Your task to perform on an android device: turn on translation in the chrome app Image 0: 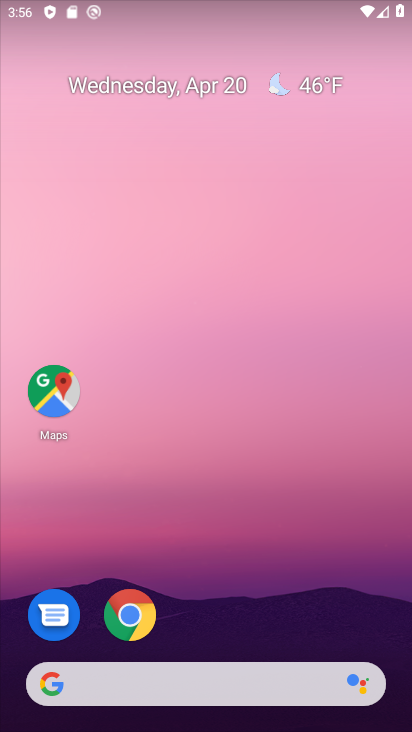
Step 0: drag from (341, 501) to (118, 16)
Your task to perform on an android device: turn on translation in the chrome app Image 1: 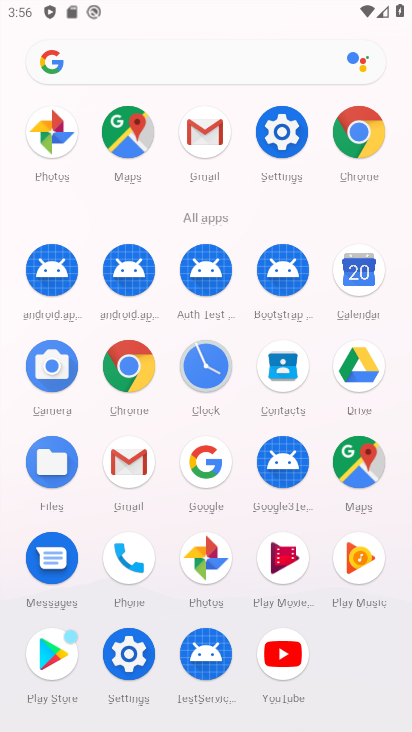
Step 1: click (376, 118)
Your task to perform on an android device: turn on translation in the chrome app Image 2: 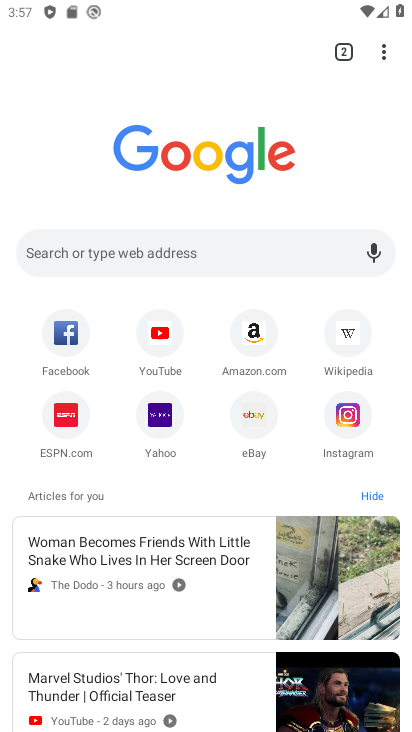
Step 2: click (385, 61)
Your task to perform on an android device: turn on translation in the chrome app Image 3: 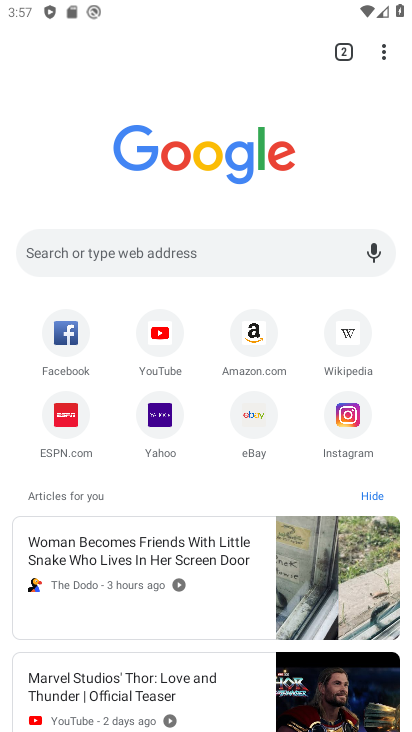
Step 3: drag from (385, 61) to (184, 437)
Your task to perform on an android device: turn on translation in the chrome app Image 4: 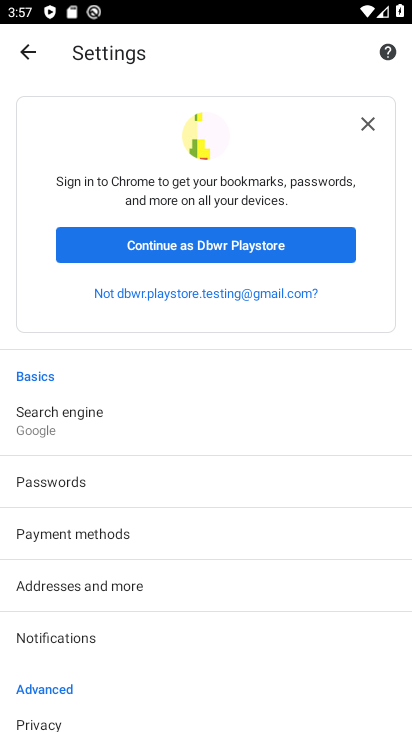
Step 4: drag from (89, 569) to (164, 321)
Your task to perform on an android device: turn on translation in the chrome app Image 5: 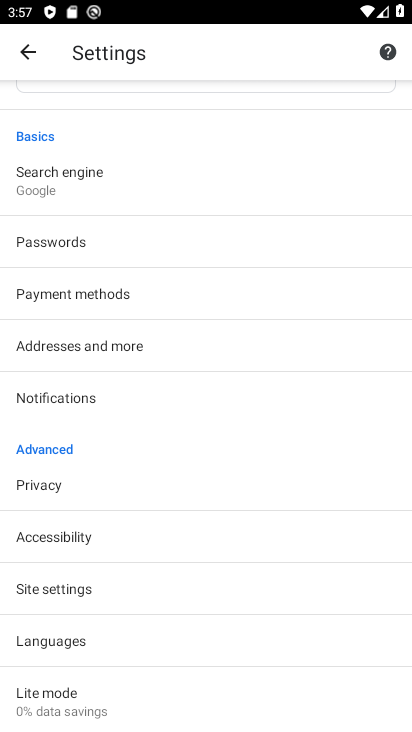
Step 5: drag from (207, 575) to (307, 287)
Your task to perform on an android device: turn on translation in the chrome app Image 6: 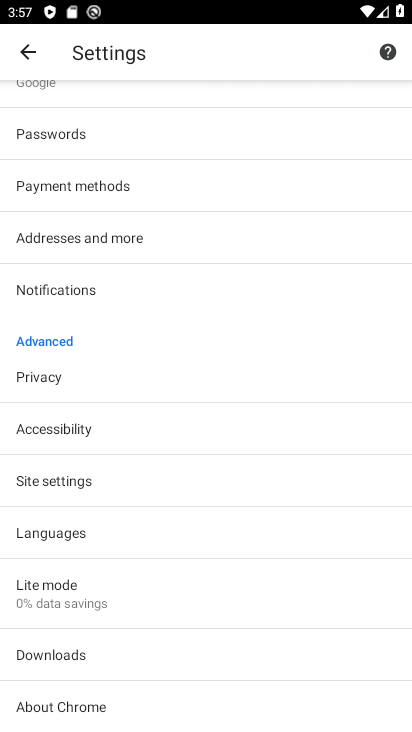
Step 6: click (98, 532)
Your task to perform on an android device: turn on translation in the chrome app Image 7: 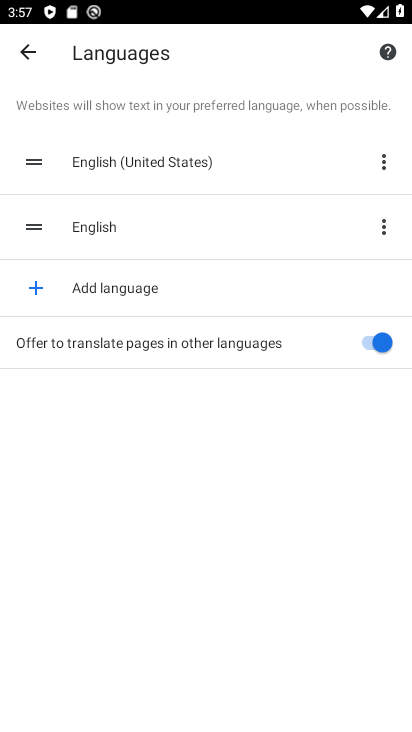
Step 7: task complete